Your task to perform on an android device: Open my contact list Image 0: 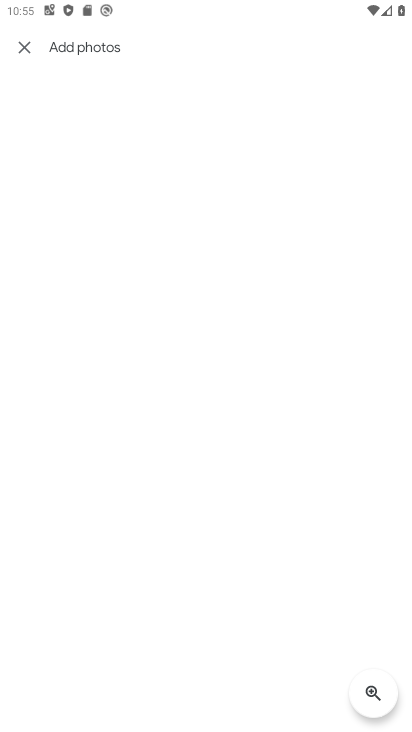
Step 0: press home button
Your task to perform on an android device: Open my contact list Image 1: 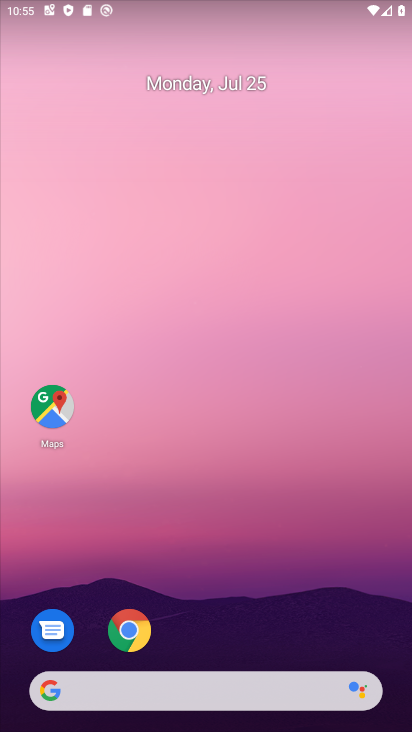
Step 1: drag from (339, 593) to (369, 122)
Your task to perform on an android device: Open my contact list Image 2: 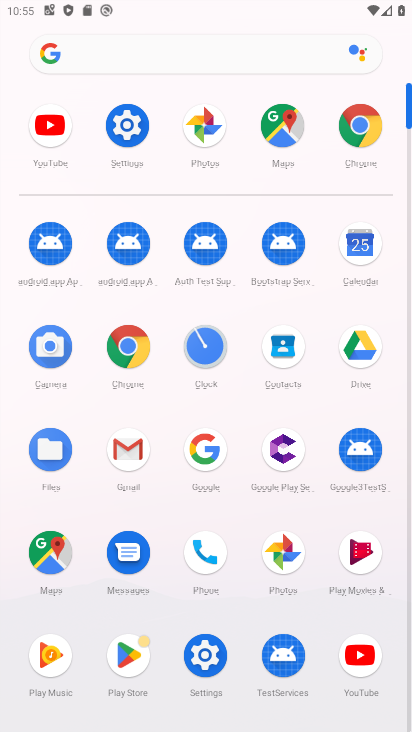
Step 2: click (287, 351)
Your task to perform on an android device: Open my contact list Image 3: 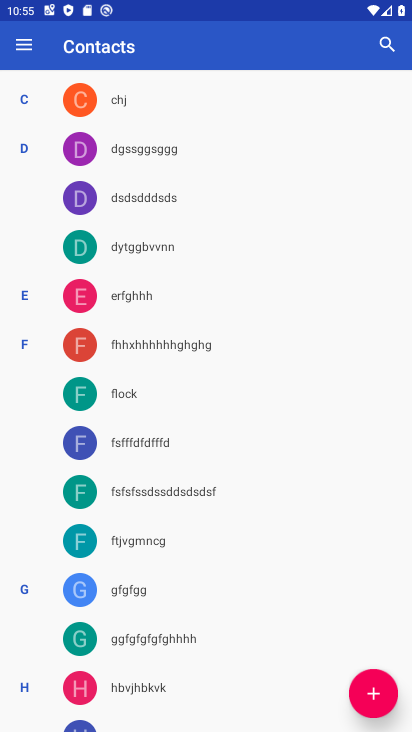
Step 3: task complete